Your task to perform on an android device: turn smart compose on in the gmail app Image 0: 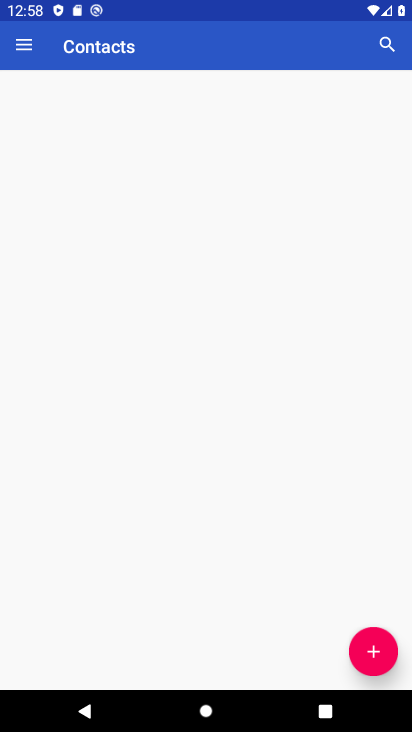
Step 0: press home button
Your task to perform on an android device: turn smart compose on in the gmail app Image 1: 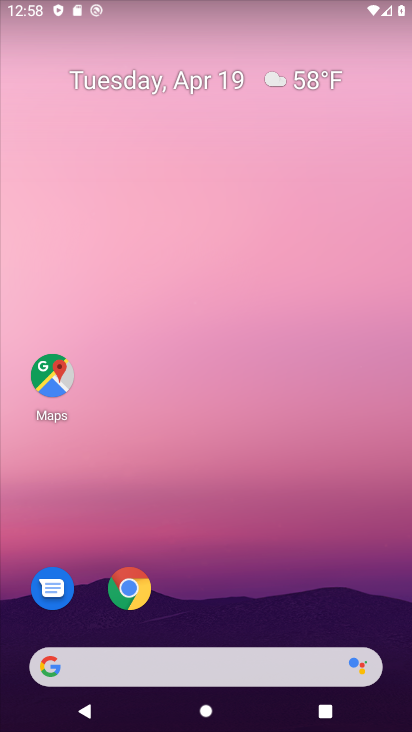
Step 1: drag from (221, 604) to (222, 222)
Your task to perform on an android device: turn smart compose on in the gmail app Image 2: 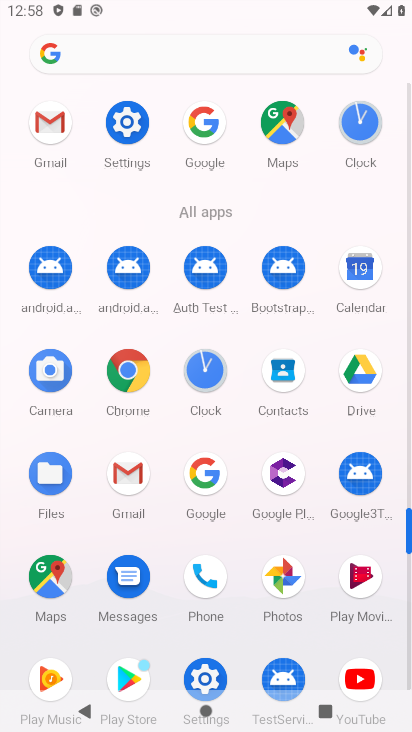
Step 2: click (42, 131)
Your task to perform on an android device: turn smart compose on in the gmail app Image 3: 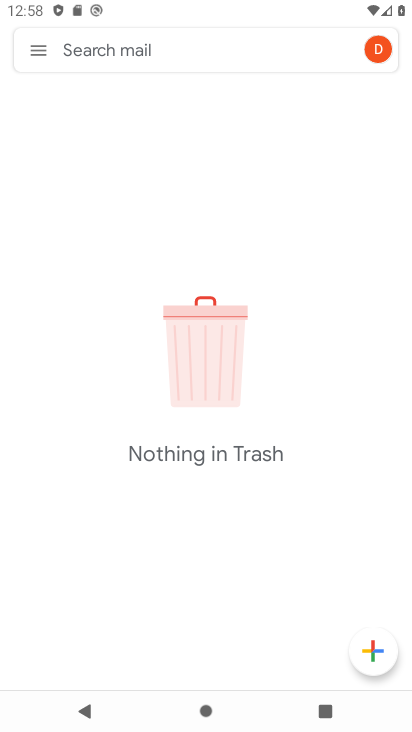
Step 3: click (45, 55)
Your task to perform on an android device: turn smart compose on in the gmail app Image 4: 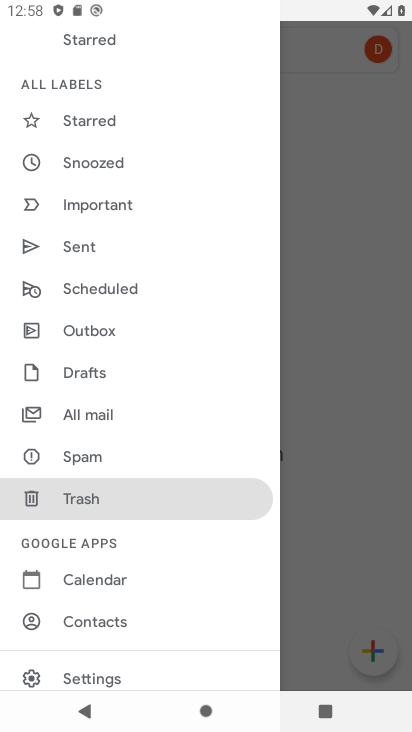
Step 4: click (123, 669)
Your task to perform on an android device: turn smart compose on in the gmail app Image 5: 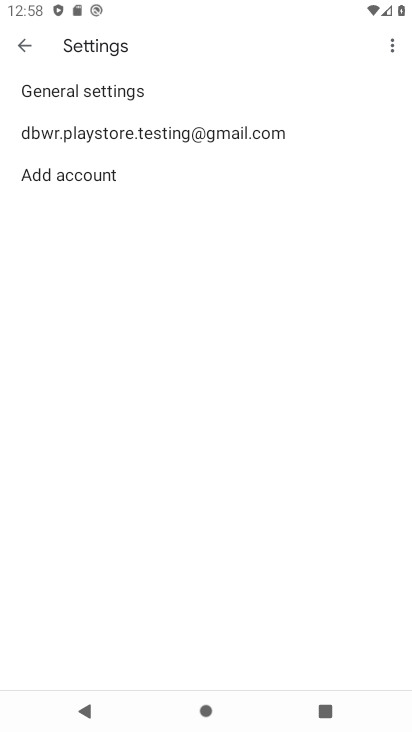
Step 5: click (177, 135)
Your task to perform on an android device: turn smart compose on in the gmail app Image 6: 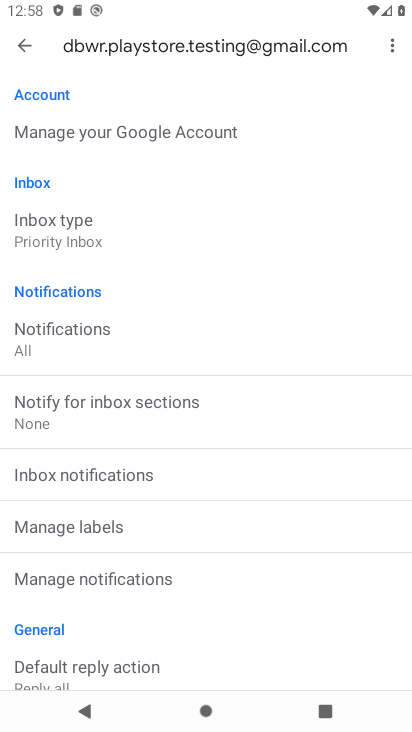
Step 6: task complete